Your task to perform on an android device: Go to sound settings Image 0: 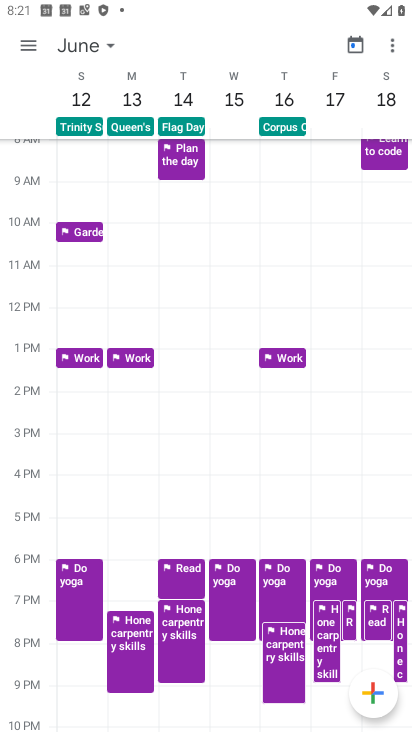
Step 0: press home button
Your task to perform on an android device: Go to sound settings Image 1: 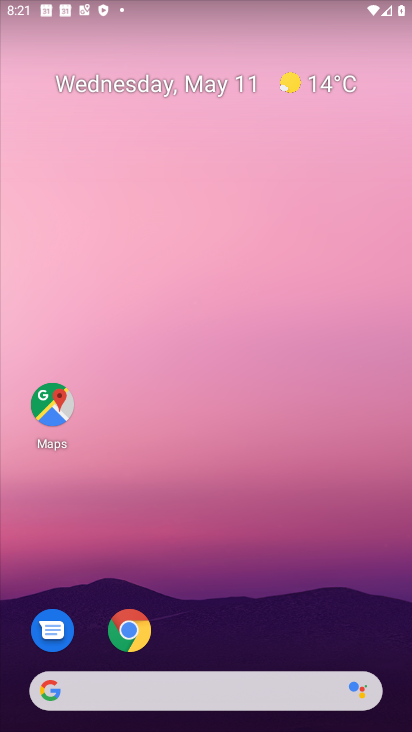
Step 1: click (222, 662)
Your task to perform on an android device: Go to sound settings Image 2: 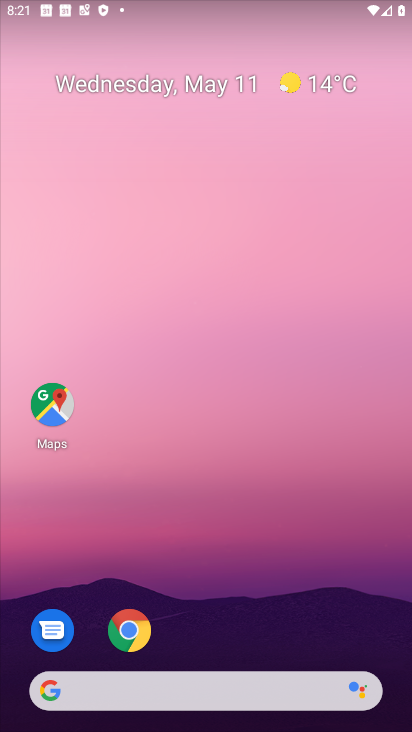
Step 2: drag from (222, 662) to (163, 306)
Your task to perform on an android device: Go to sound settings Image 3: 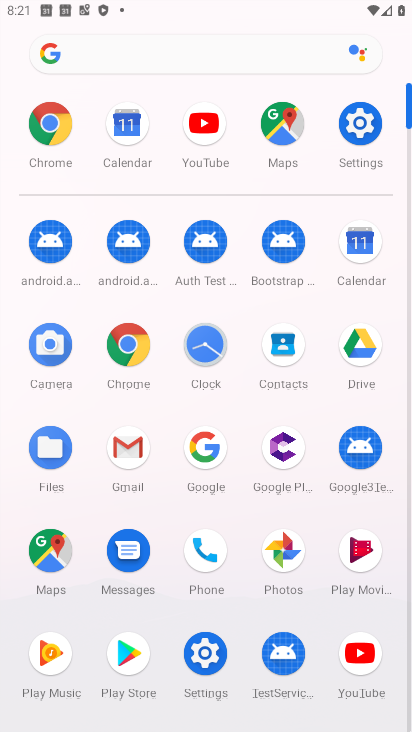
Step 3: click (360, 113)
Your task to perform on an android device: Go to sound settings Image 4: 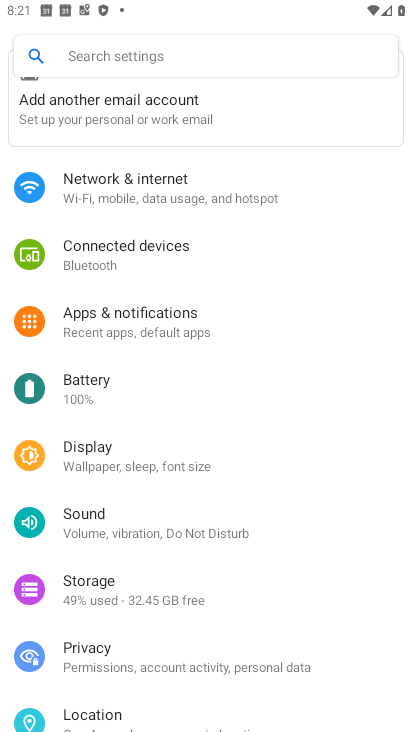
Step 4: click (67, 509)
Your task to perform on an android device: Go to sound settings Image 5: 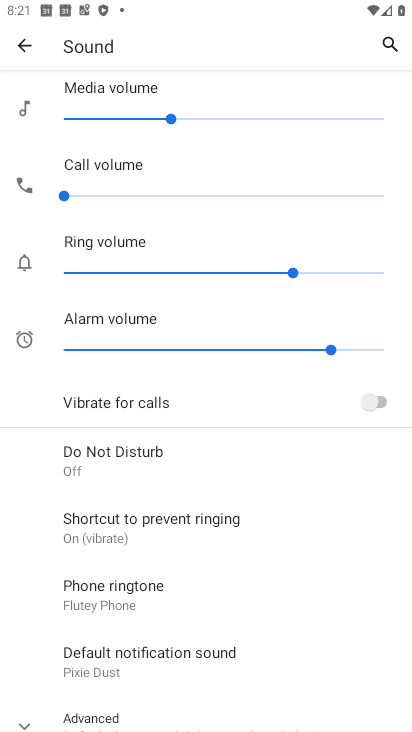
Step 5: task complete